Your task to perform on an android device: open the mobile data screen to see how much data has been used Image 0: 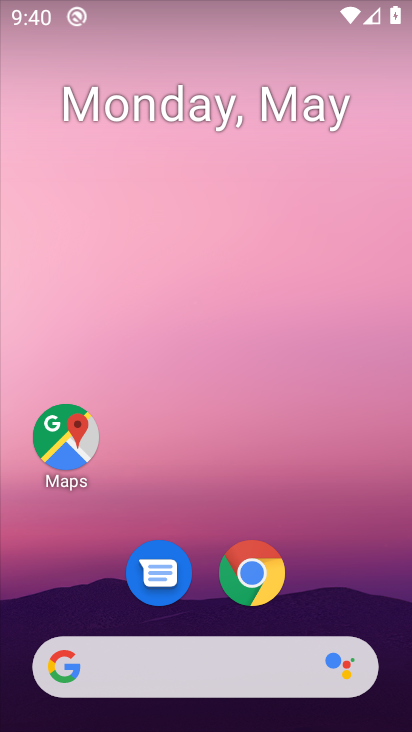
Step 0: drag from (203, 504) to (265, 1)
Your task to perform on an android device: open the mobile data screen to see how much data has been used Image 1: 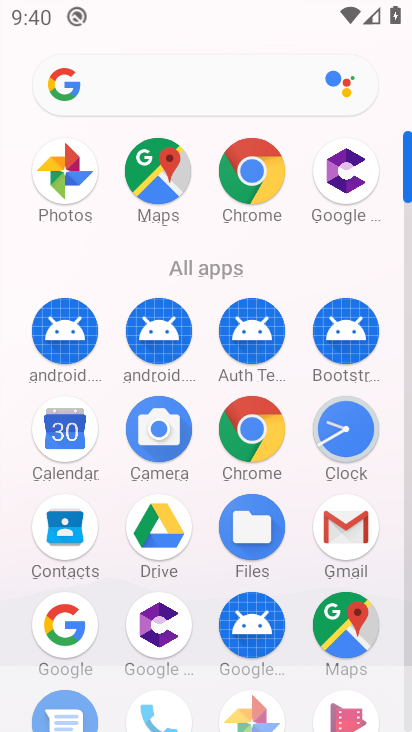
Step 1: drag from (180, 515) to (239, 34)
Your task to perform on an android device: open the mobile data screen to see how much data has been used Image 2: 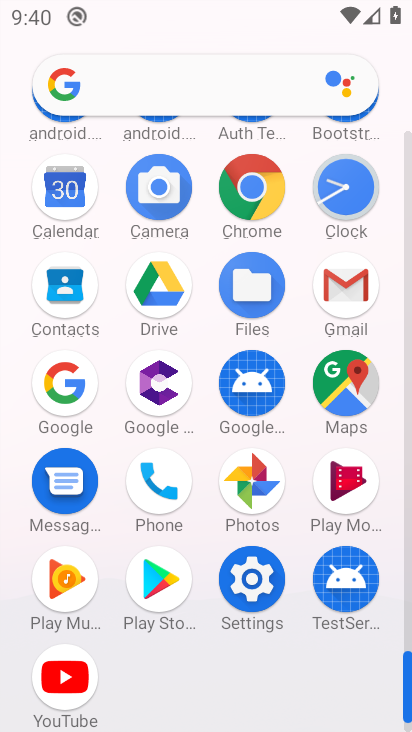
Step 2: click (256, 586)
Your task to perform on an android device: open the mobile data screen to see how much data has been used Image 3: 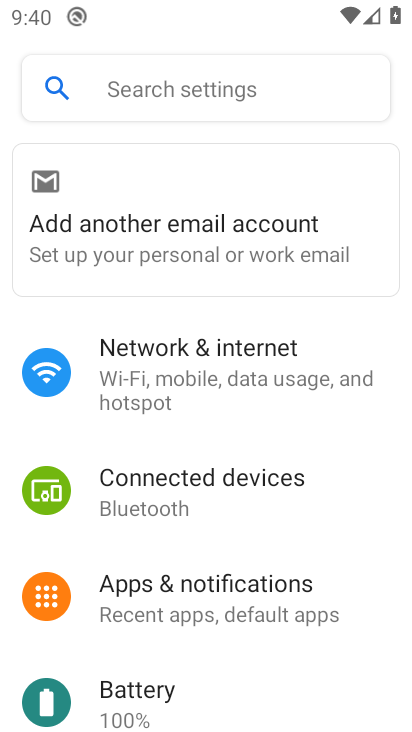
Step 3: click (193, 392)
Your task to perform on an android device: open the mobile data screen to see how much data has been used Image 4: 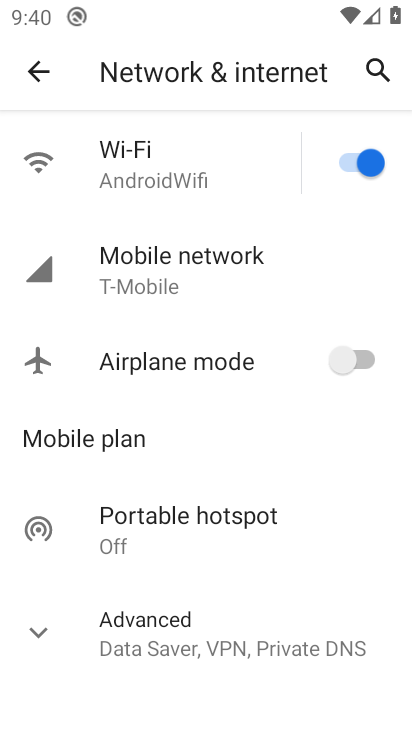
Step 4: click (168, 254)
Your task to perform on an android device: open the mobile data screen to see how much data has been used Image 5: 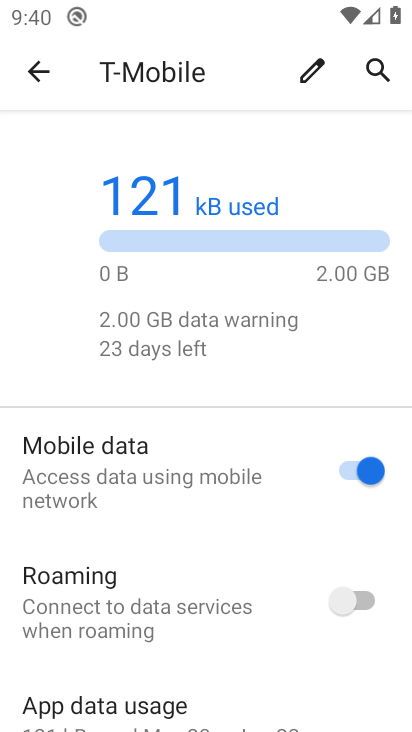
Step 5: drag from (149, 629) to (186, 147)
Your task to perform on an android device: open the mobile data screen to see how much data has been used Image 6: 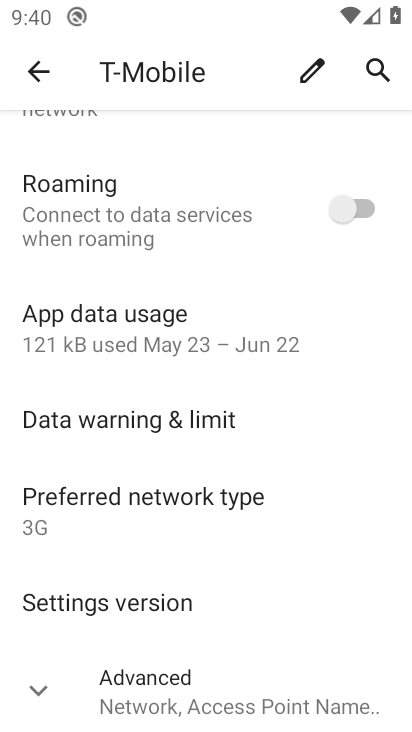
Step 6: click (93, 330)
Your task to perform on an android device: open the mobile data screen to see how much data has been used Image 7: 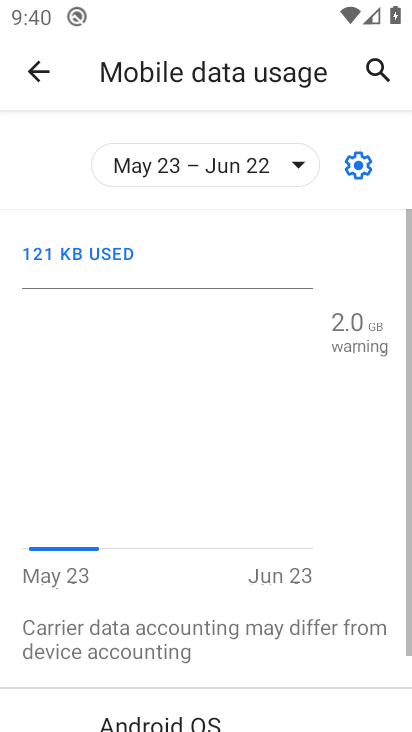
Step 7: task complete